Your task to perform on an android device: Search for pizza restaurants on Maps Image 0: 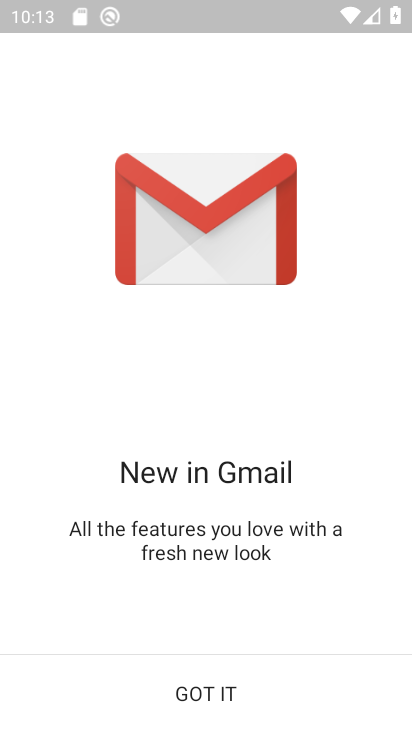
Step 0: press home button
Your task to perform on an android device: Search for pizza restaurants on Maps Image 1: 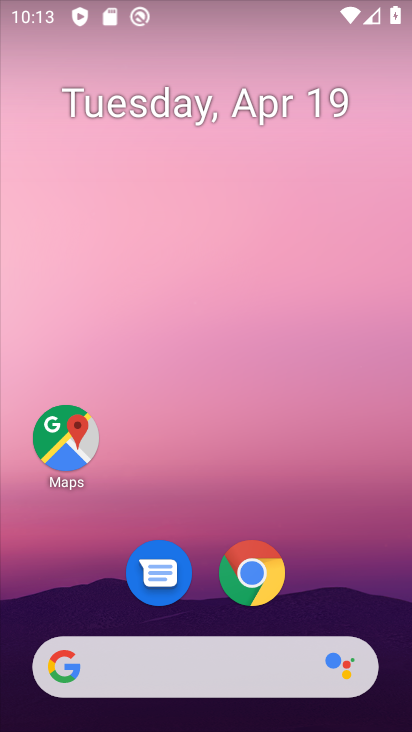
Step 1: click (70, 442)
Your task to perform on an android device: Search for pizza restaurants on Maps Image 2: 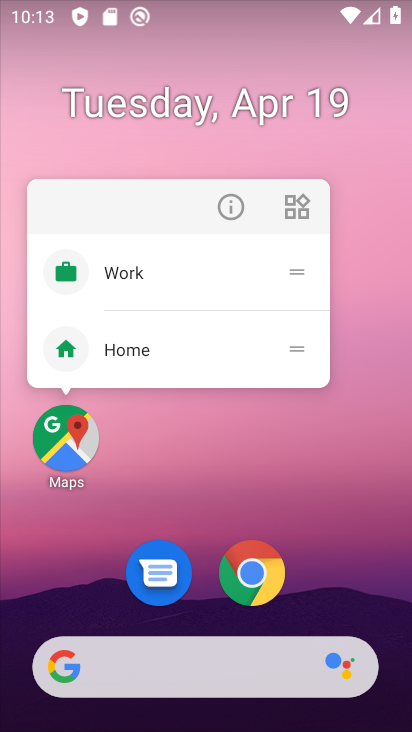
Step 2: click (70, 442)
Your task to perform on an android device: Search for pizza restaurants on Maps Image 3: 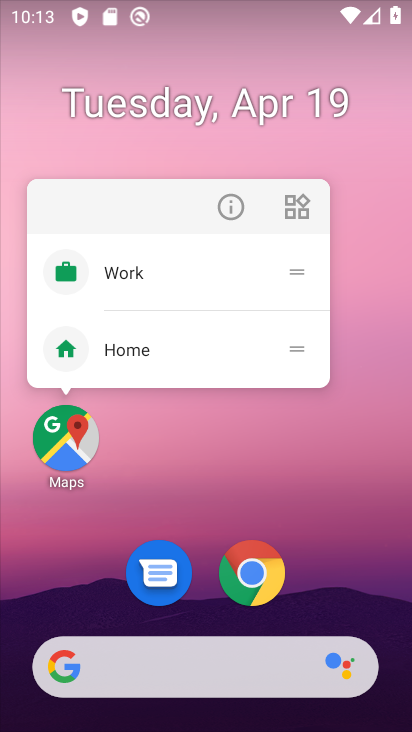
Step 3: click (70, 442)
Your task to perform on an android device: Search for pizza restaurants on Maps Image 4: 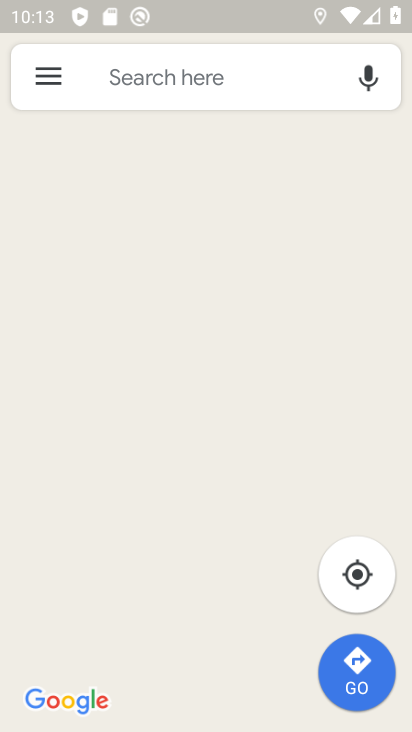
Step 4: click (219, 78)
Your task to perform on an android device: Search for pizza restaurants on Maps Image 5: 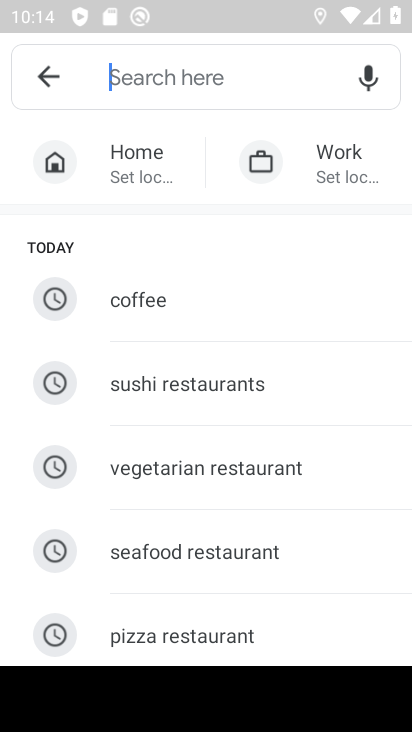
Step 5: type "pizza restaurants"
Your task to perform on an android device: Search for pizza restaurants on Maps Image 6: 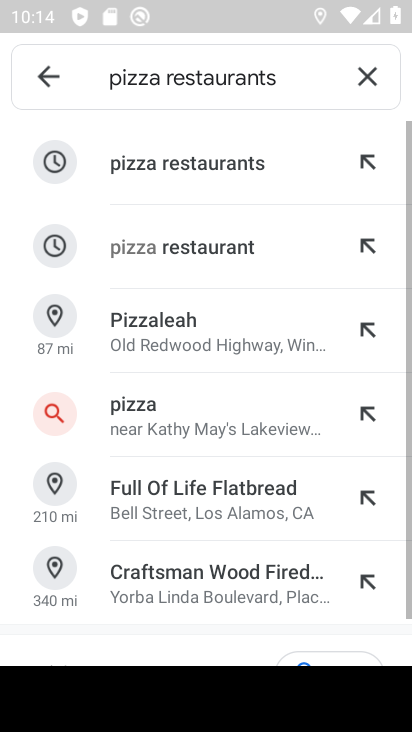
Step 6: click (193, 167)
Your task to perform on an android device: Search for pizza restaurants on Maps Image 7: 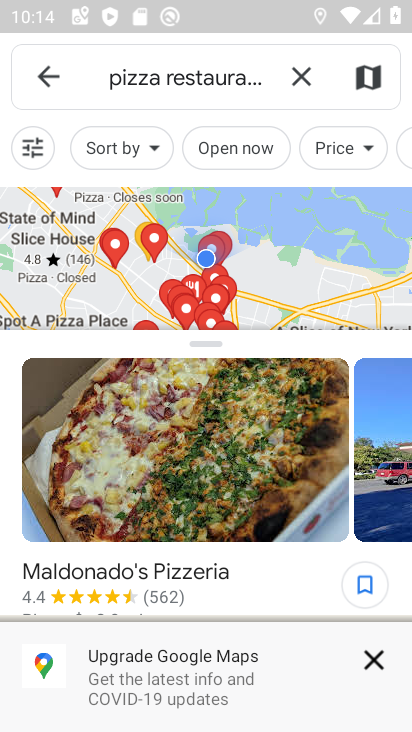
Step 7: task complete